Your task to perform on an android device: move a message to another label in the gmail app Image 0: 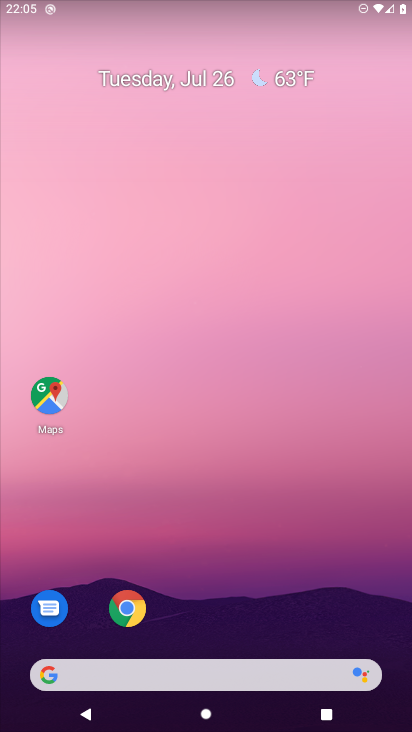
Step 0: drag from (19, 703) to (231, 117)
Your task to perform on an android device: move a message to another label in the gmail app Image 1: 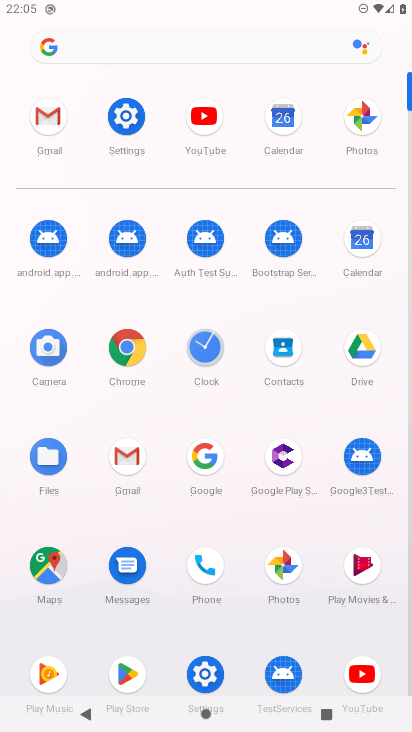
Step 1: click (142, 459)
Your task to perform on an android device: move a message to another label in the gmail app Image 2: 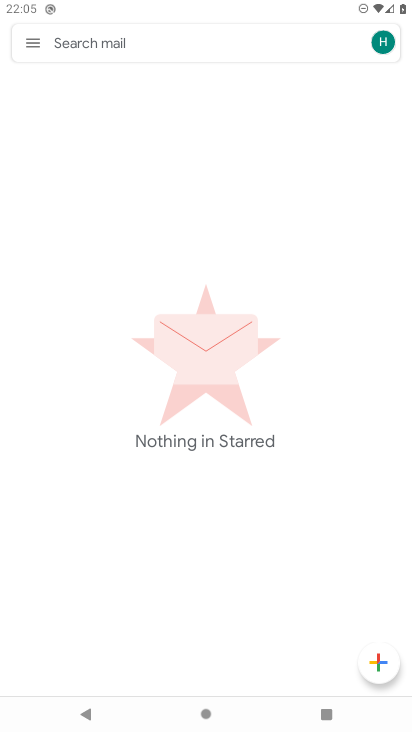
Step 2: click (33, 51)
Your task to perform on an android device: move a message to another label in the gmail app Image 3: 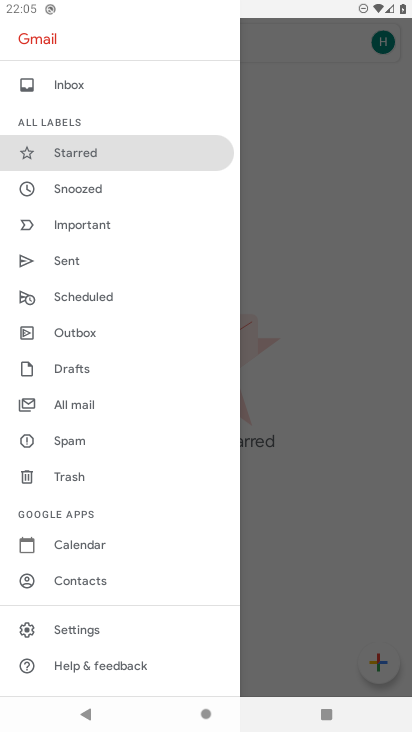
Step 3: drag from (134, 102) to (125, 406)
Your task to perform on an android device: move a message to another label in the gmail app Image 4: 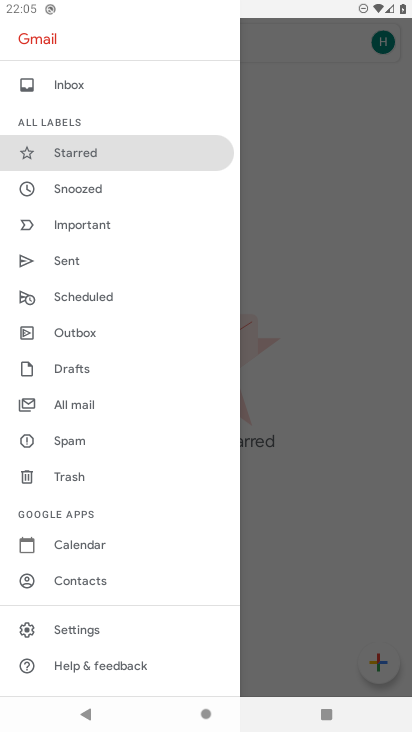
Step 4: click (80, 87)
Your task to perform on an android device: move a message to another label in the gmail app Image 5: 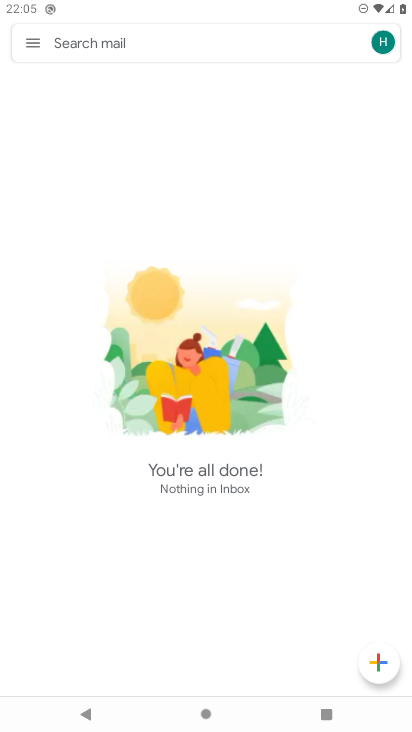
Step 5: click (26, 43)
Your task to perform on an android device: move a message to another label in the gmail app Image 6: 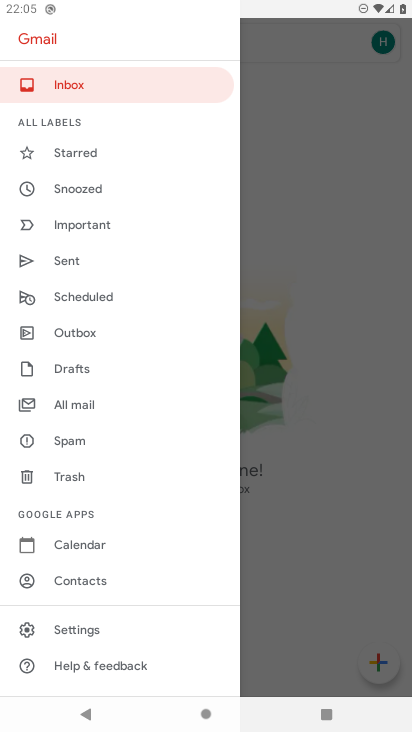
Step 6: click (97, 89)
Your task to perform on an android device: move a message to another label in the gmail app Image 7: 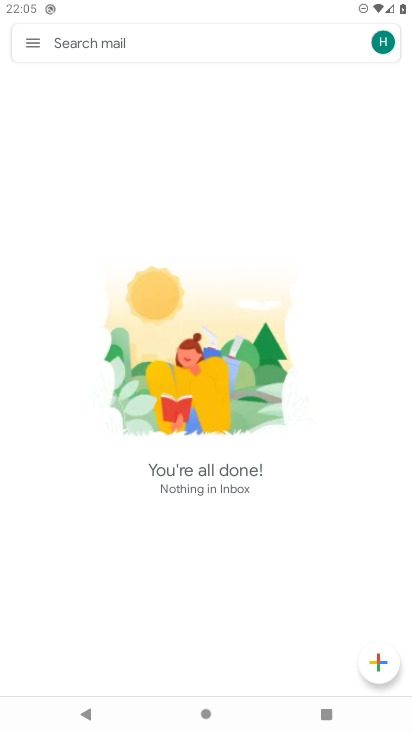
Step 7: task complete